Your task to perform on an android device: Open Android settings Image 0: 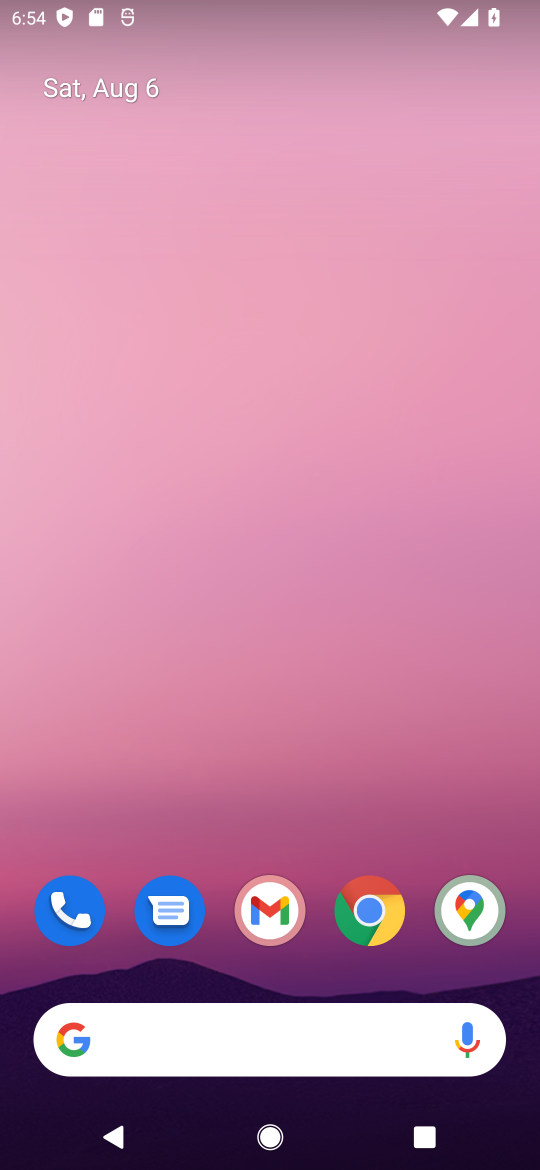
Step 0: drag from (517, 1009) to (484, 385)
Your task to perform on an android device: Open Android settings Image 1: 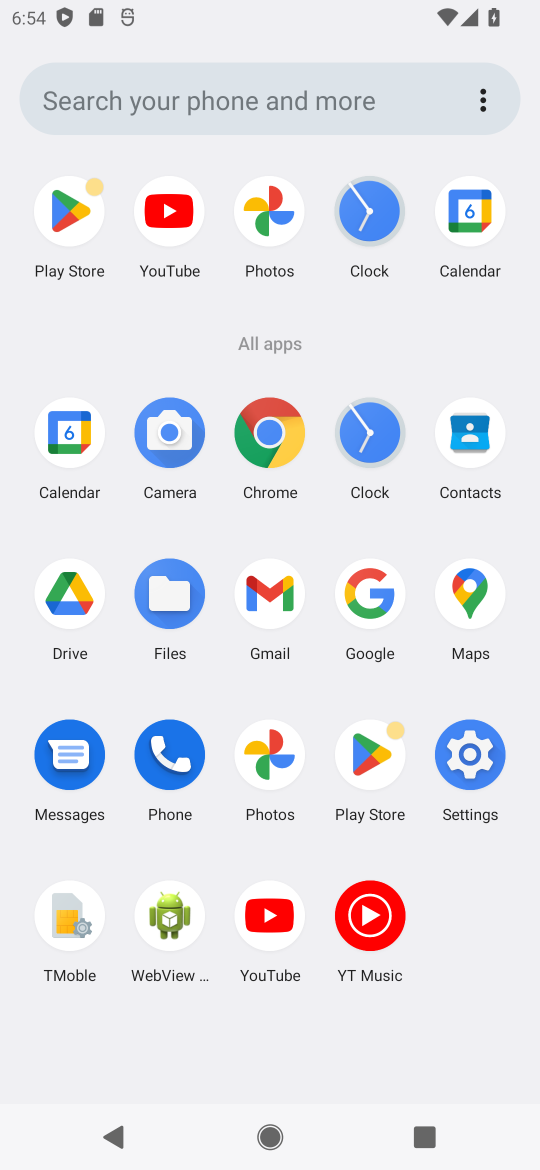
Step 1: click (471, 749)
Your task to perform on an android device: Open Android settings Image 2: 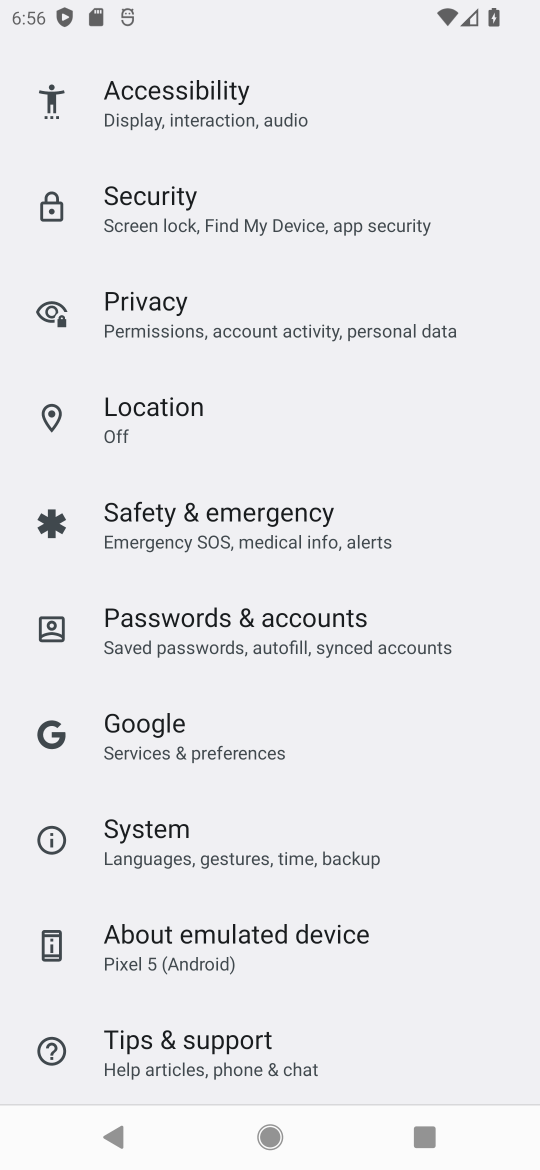
Step 2: task complete